Your task to perform on an android device: Open calendar and show me the second week of next month Image 0: 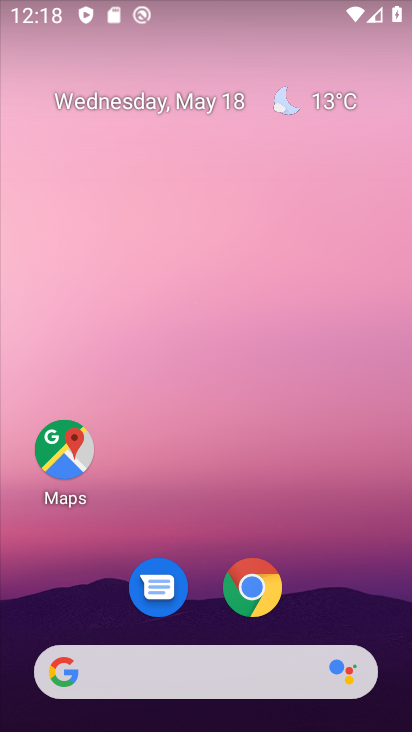
Step 0: drag from (208, 508) to (232, 112)
Your task to perform on an android device: Open calendar and show me the second week of next month Image 1: 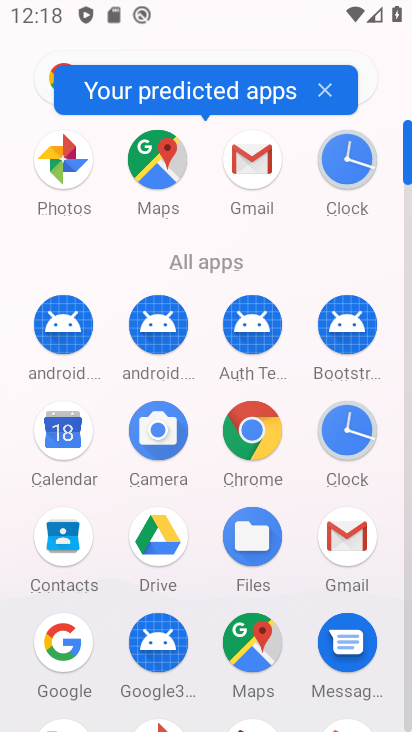
Step 1: click (65, 435)
Your task to perform on an android device: Open calendar and show me the second week of next month Image 2: 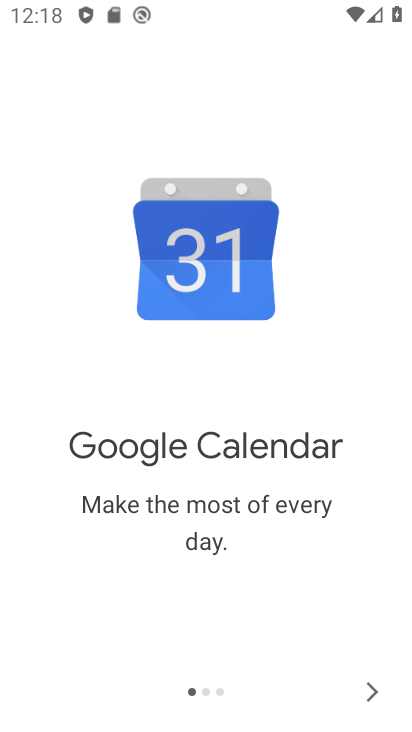
Step 2: click (369, 683)
Your task to perform on an android device: Open calendar and show me the second week of next month Image 3: 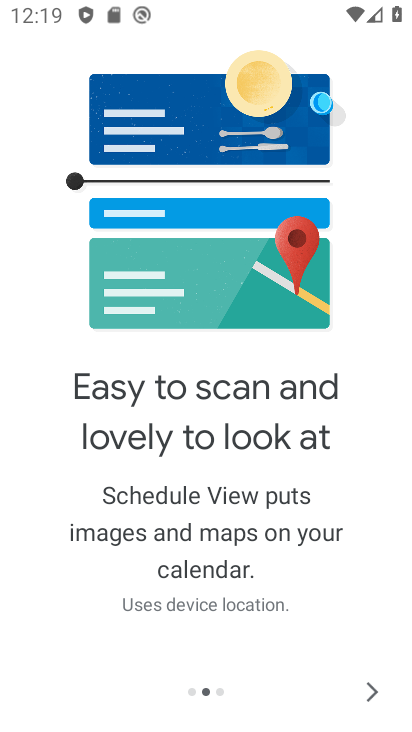
Step 3: click (370, 688)
Your task to perform on an android device: Open calendar and show me the second week of next month Image 4: 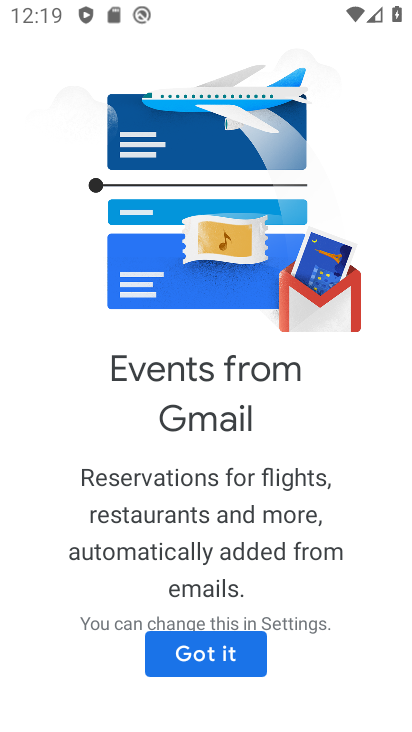
Step 4: click (162, 638)
Your task to perform on an android device: Open calendar and show me the second week of next month Image 5: 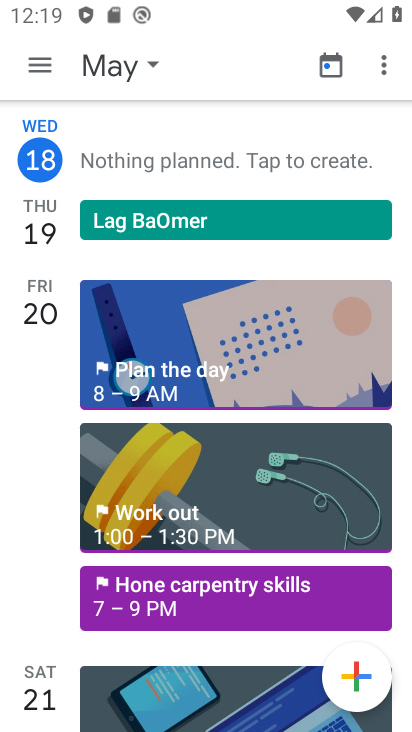
Step 5: click (114, 70)
Your task to perform on an android device: Open calendar and show me the second week of next month Image 6: 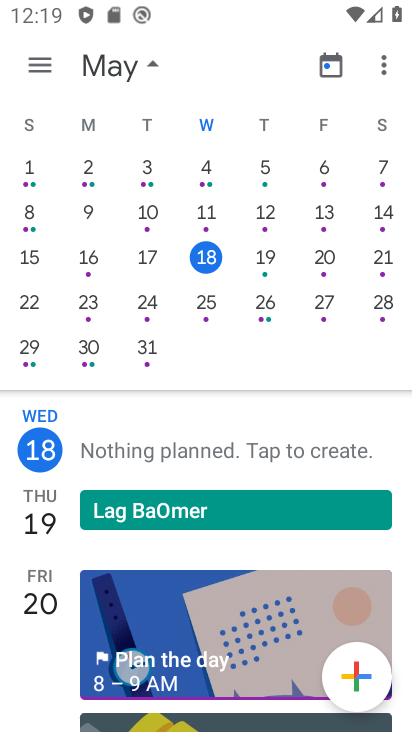
Step 6: drag from (377, 238) to (39, 217)
Your task to perform on an android device: Open calendar and show me the second week of next month Image 7: 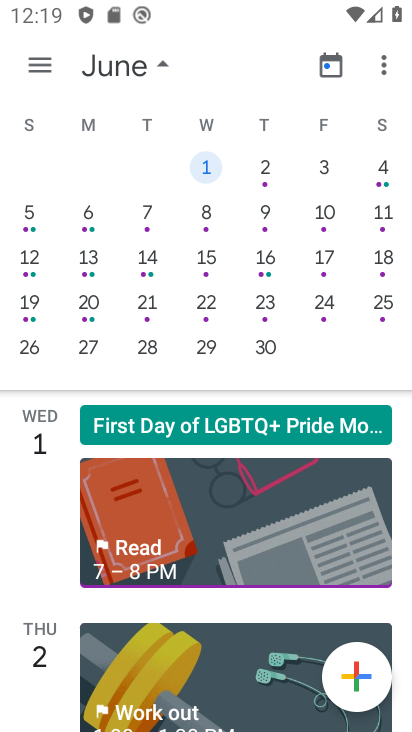
Step 7: click (92, 209)
Your task to perform on an android device: Open calendar and show me the second week of next month Image 8: 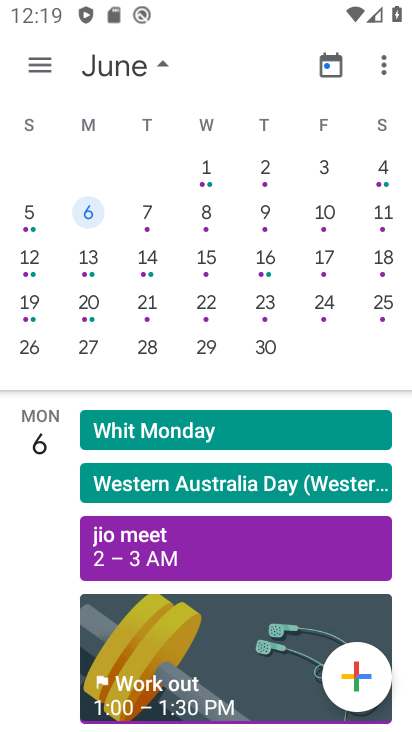
Step 8: task complete